Your task to perform on an android device: Is it going to rain tomorrow? Image 0: 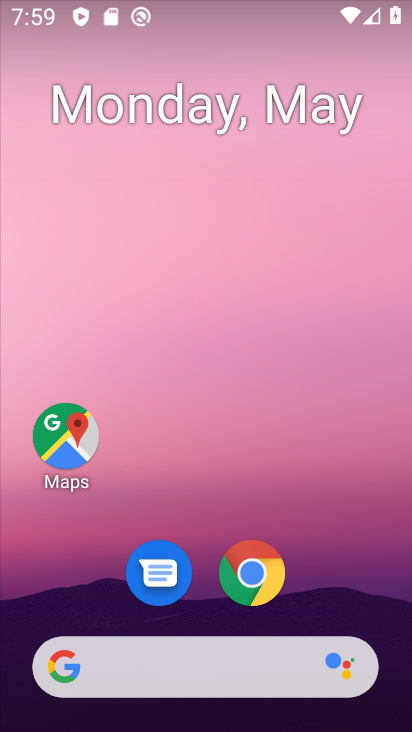
Step 0: click (213, 677)
Your task to perform on an android device: Is it going to rain tomorrow? Image 1: 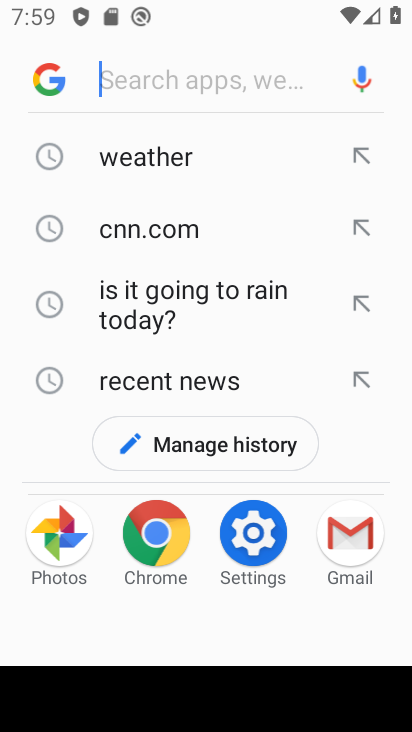
Step 1: click (159, 306)
Your task to perform on an android device: Is it going to rain tomorrow? Image 2: 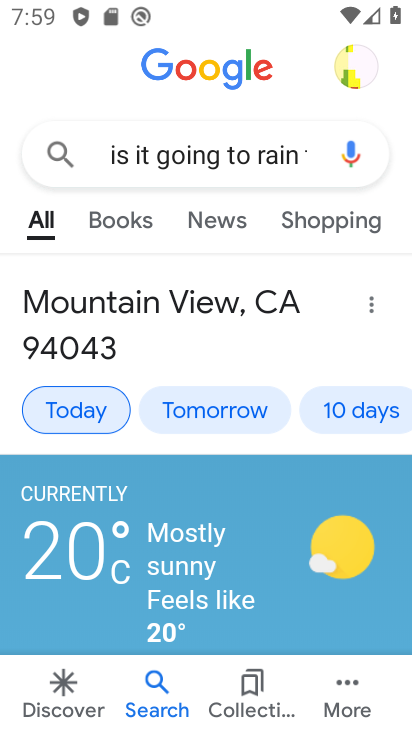
Step 2: click (215, 394)
Your task to perform on an android device: Is it going to rain tomorrow? Image 3: 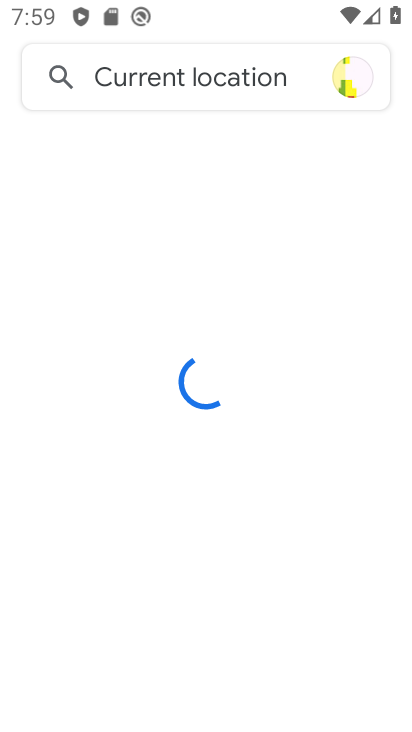
Step 3: task complete